Your task to perform on an android device: Open Google Chrome and open the bookmarks view Image 0: 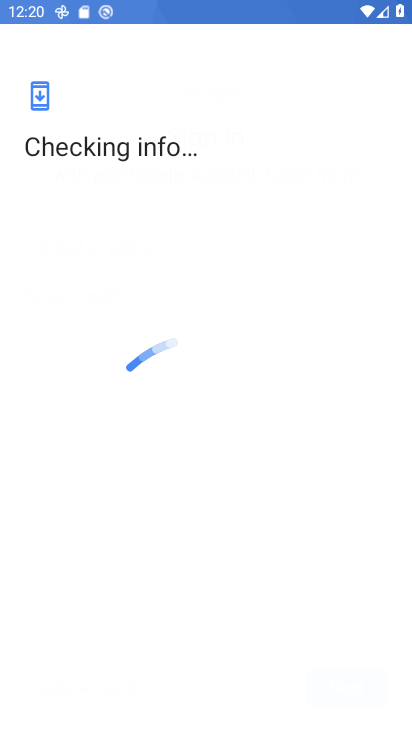
Step 0: press home button
Your task to perform on an android device: Open Google Chrome and open the bookmarks view Image 1: 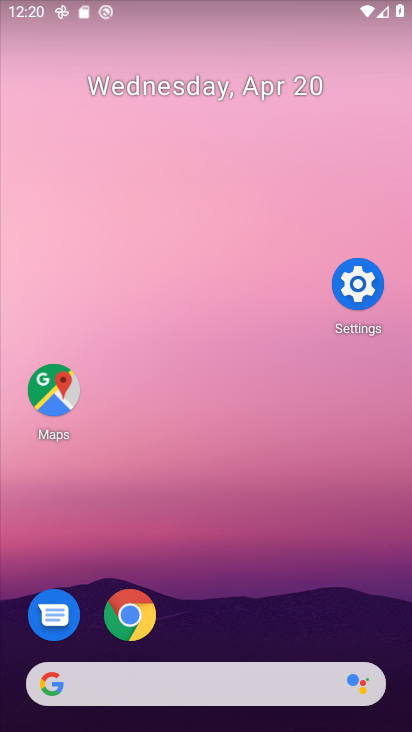
Step 1: drag from (192, 606) to (215, 327)
Your task to perform on an android device: Open Google Chrome and open the bookmarks view Image 2: 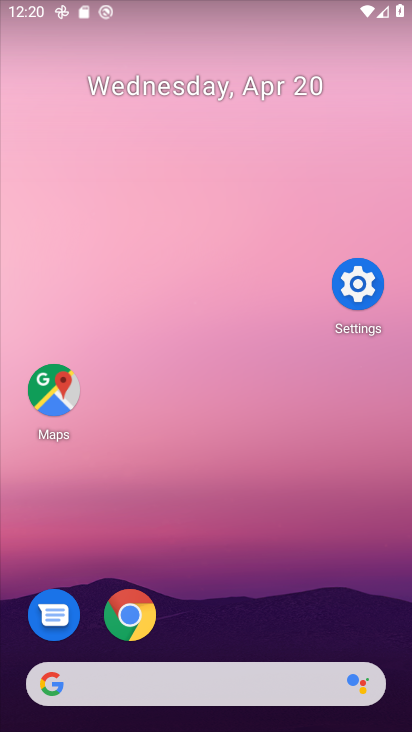
Step 2: click (122, 609)
Your task to perform on an android device: Open Google Chrome and open the bookmarks view Image 3: 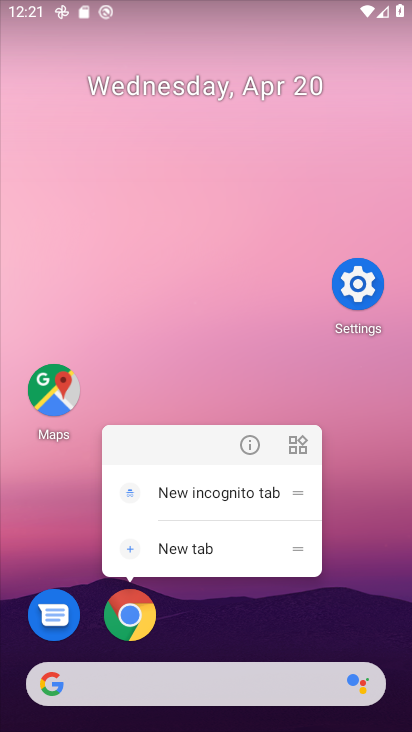
Step 3: click (253, 433)
Your task to perform on an android device: Open Google Chrome and open the bookmarks view Image 4: 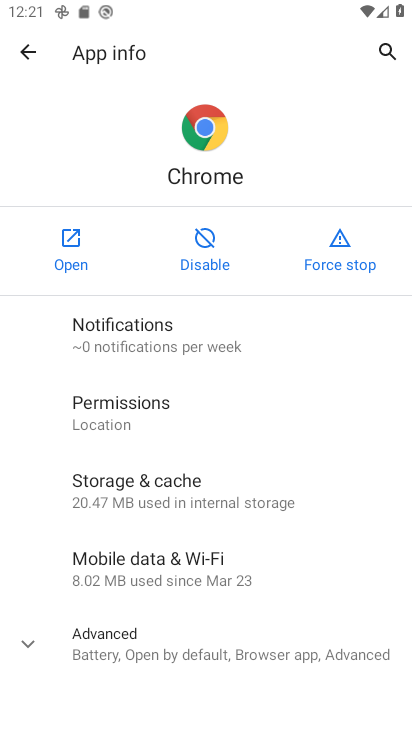
Step 4: click (75, 250)
Your task to perform on an android device: Open Google Chrome and open the bookmarks view Image 5: 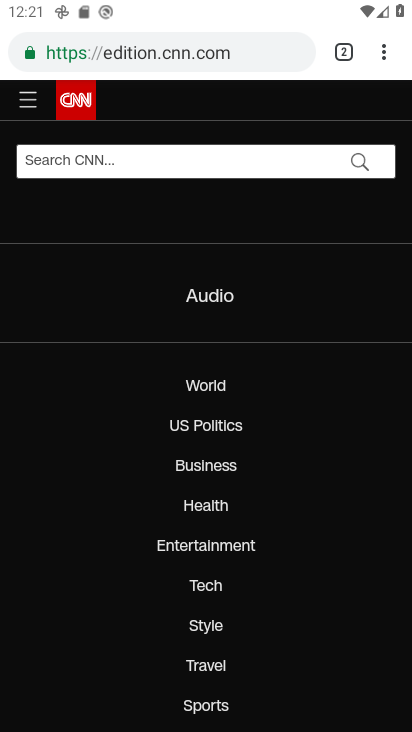
Step 5: task complete